Your task to perform on an android device: Open notification settings Image 0: 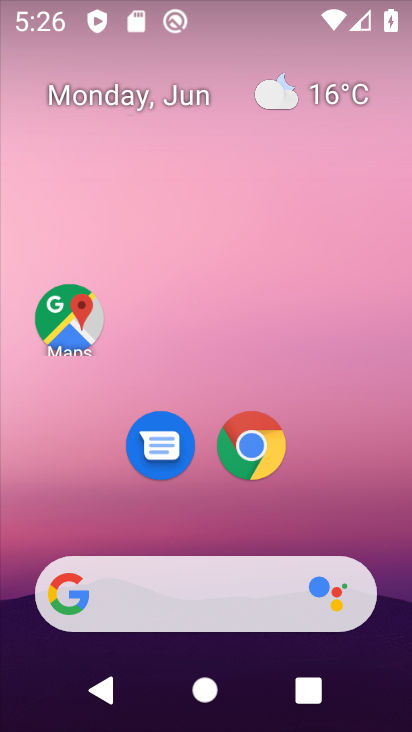
Step 0: drag from (342, 515) to (303, 69)
Your task to perform on an android device: Open notification settings Image 1: 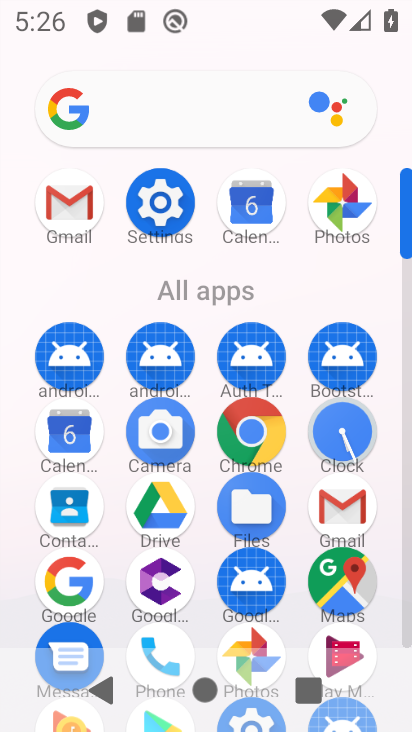
Step 1: click (154, 201)
Your task to perform on an android device: Open notification settings Image 2: 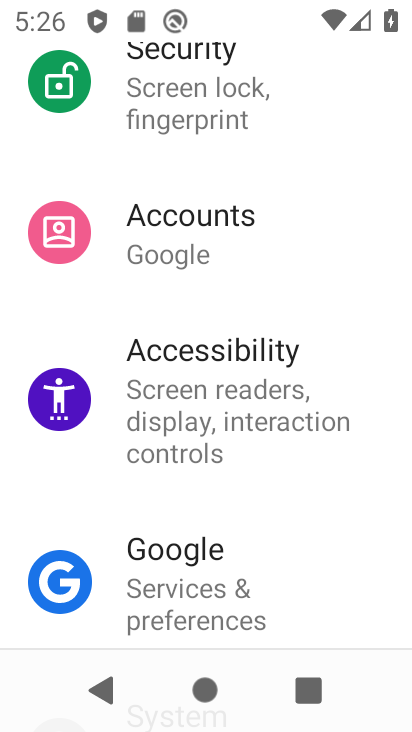
Step 2: drag from (259, 177) to (176, 625)
Your task to perform on an android device: Open notification settings Image 3: 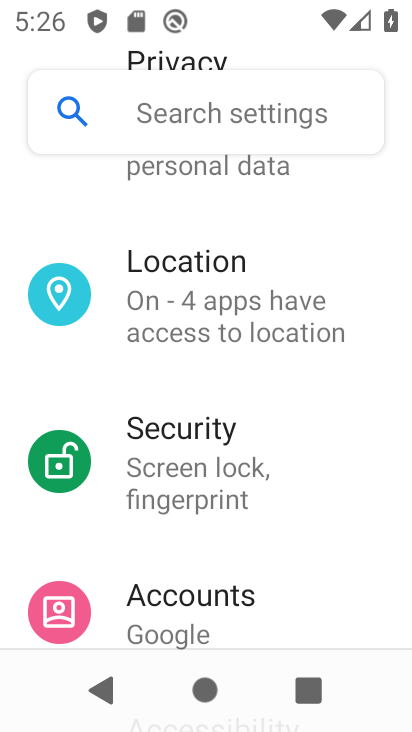
Step 3: drag from (317, 227) to (321, 627)
Your task to perform on an android device: Open notification settings Image 4: 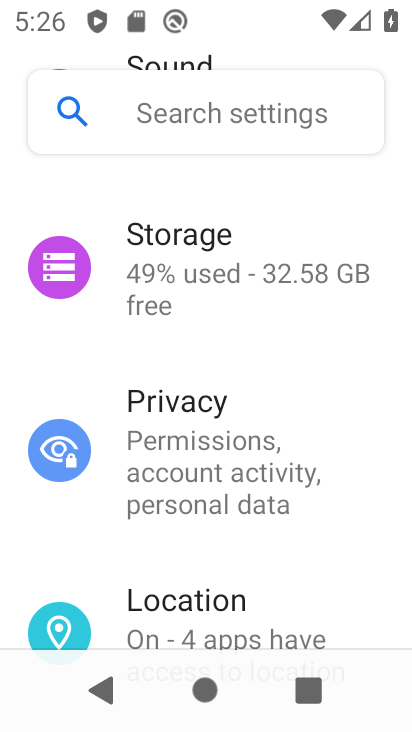
Step 4: drag from (312, 211) to (349, 604)
Your task to perform on an android device: Open notification settings Image 5: 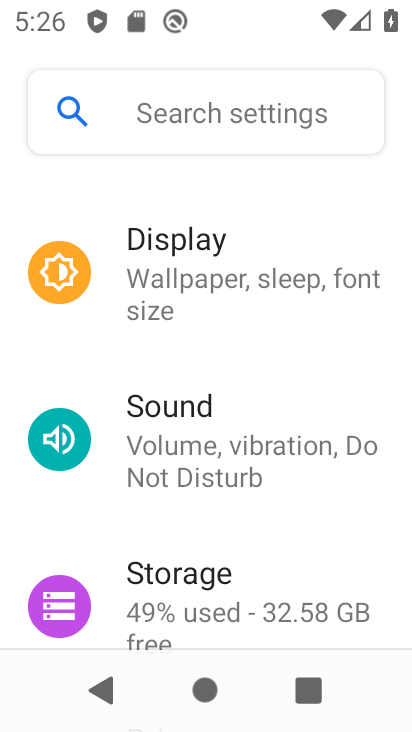
Step 5: drag from (328, 212) to (326, 583)
Your task to perform on an android device: Open notification settings Image 6: 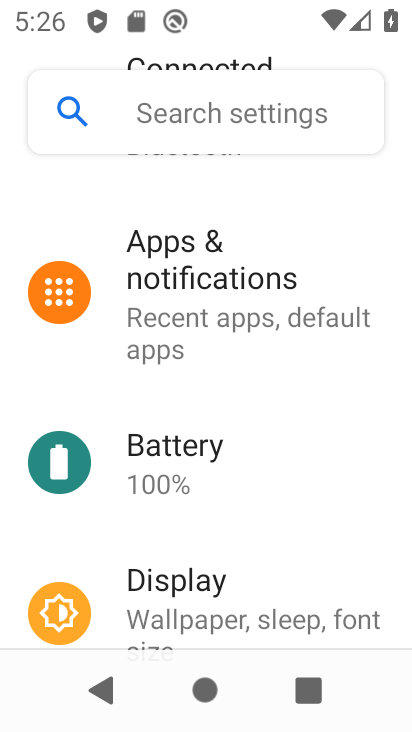
Step 6: click (264, 311)
Your task to perform on an android device: Open notification settings Image 7: 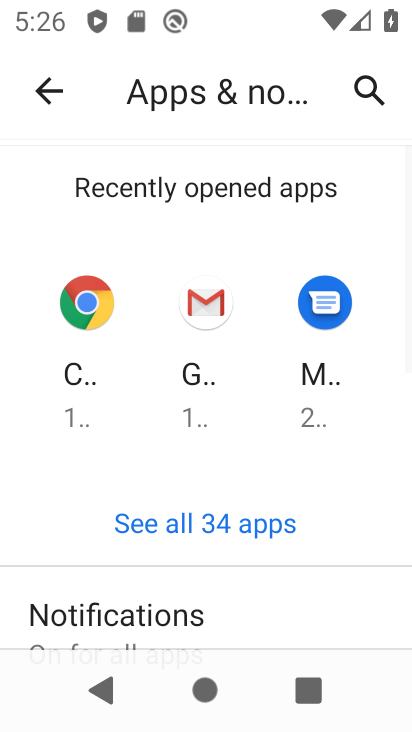
Step 7: click (131, 607)
Your task to perform on an android device: Open notification settings Image 8: 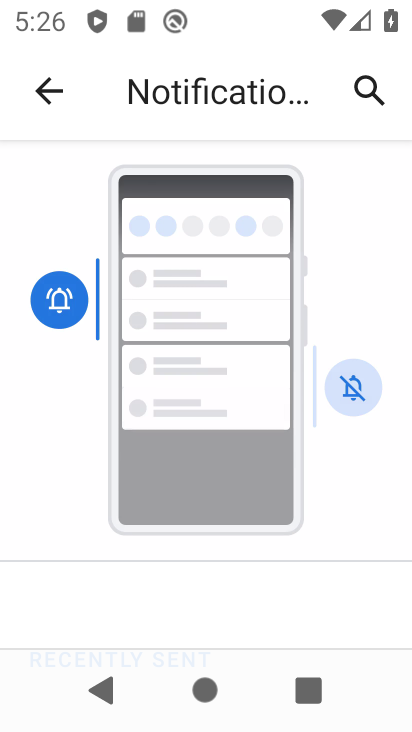
Step 8: task complete